Your task to perform on an android device: open app "Google Drive" (install if not already installed) Image 0: 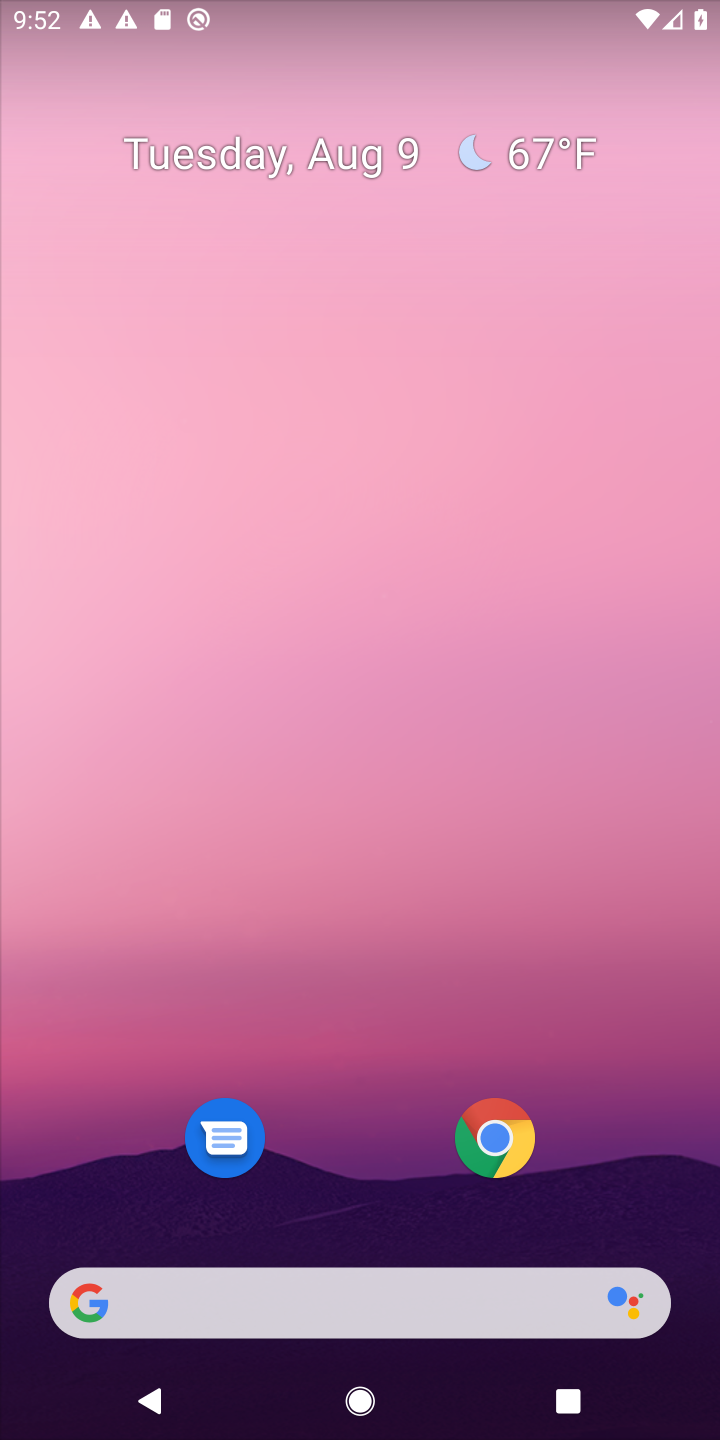
Step 0: drag from (367, 1205) to (365, 200)
Your task to perform on an android device: open app "Google Drive" (install if not already installed) Image 1: 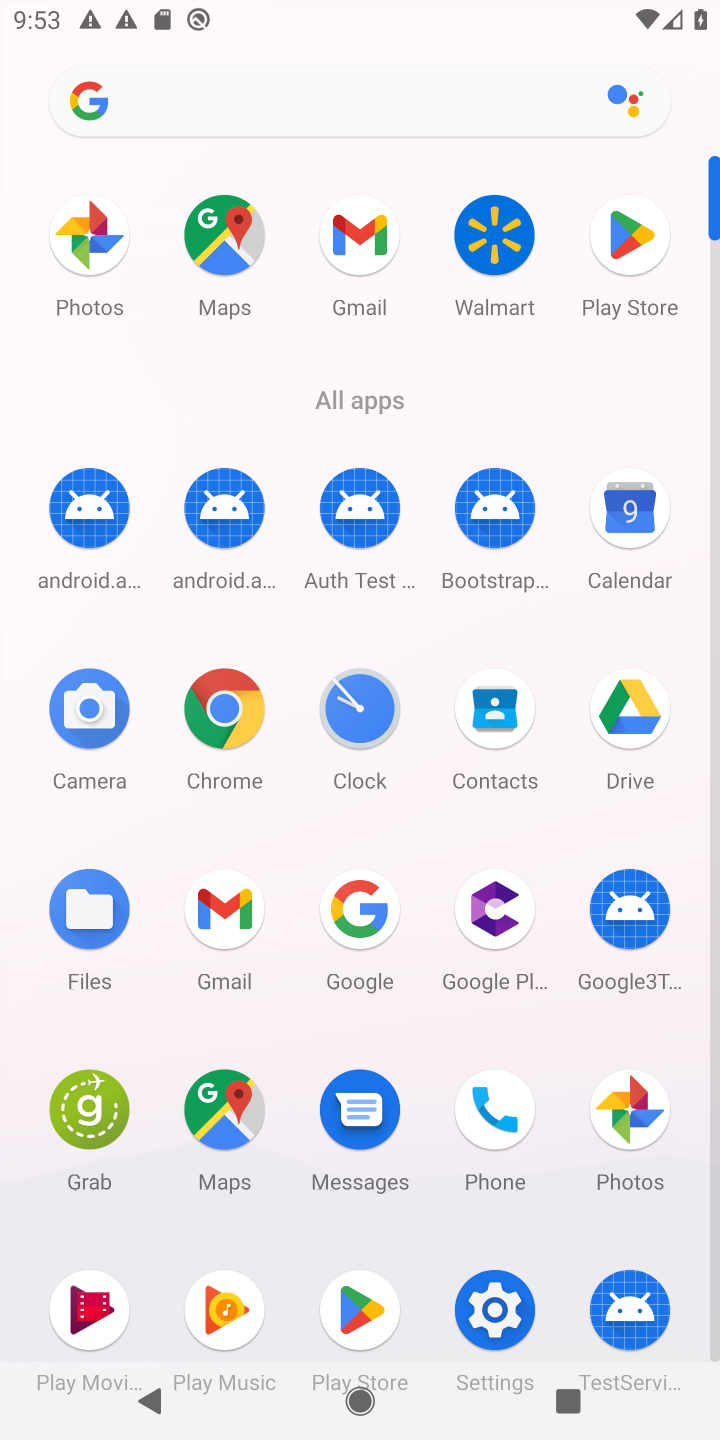
Step 1: click (367, 1288)
Your task to perform on an android device: open app "Google Drive" (install if not already installed) Image 2: 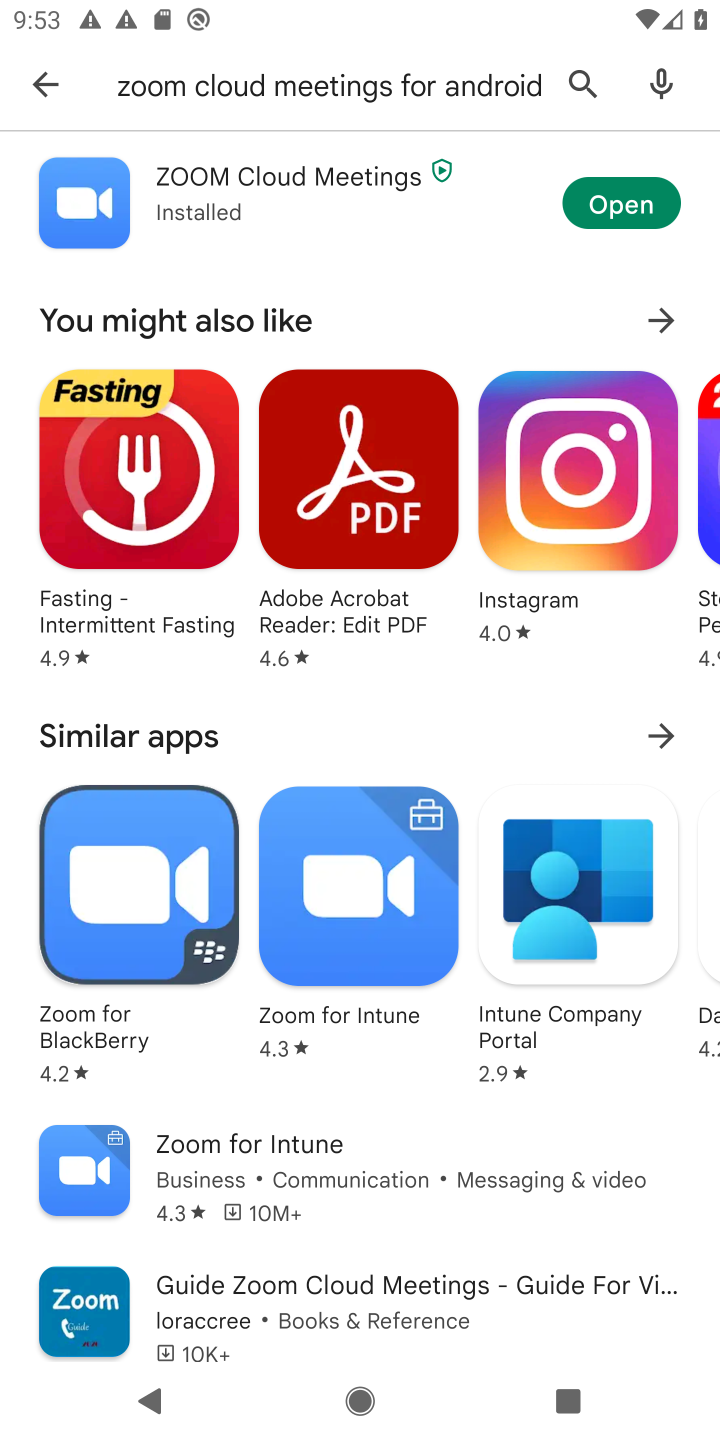
Step 2: click (572, 66)
Your task to perform on an android device: open app "Google Drive" (install if not already installed) Image 3: 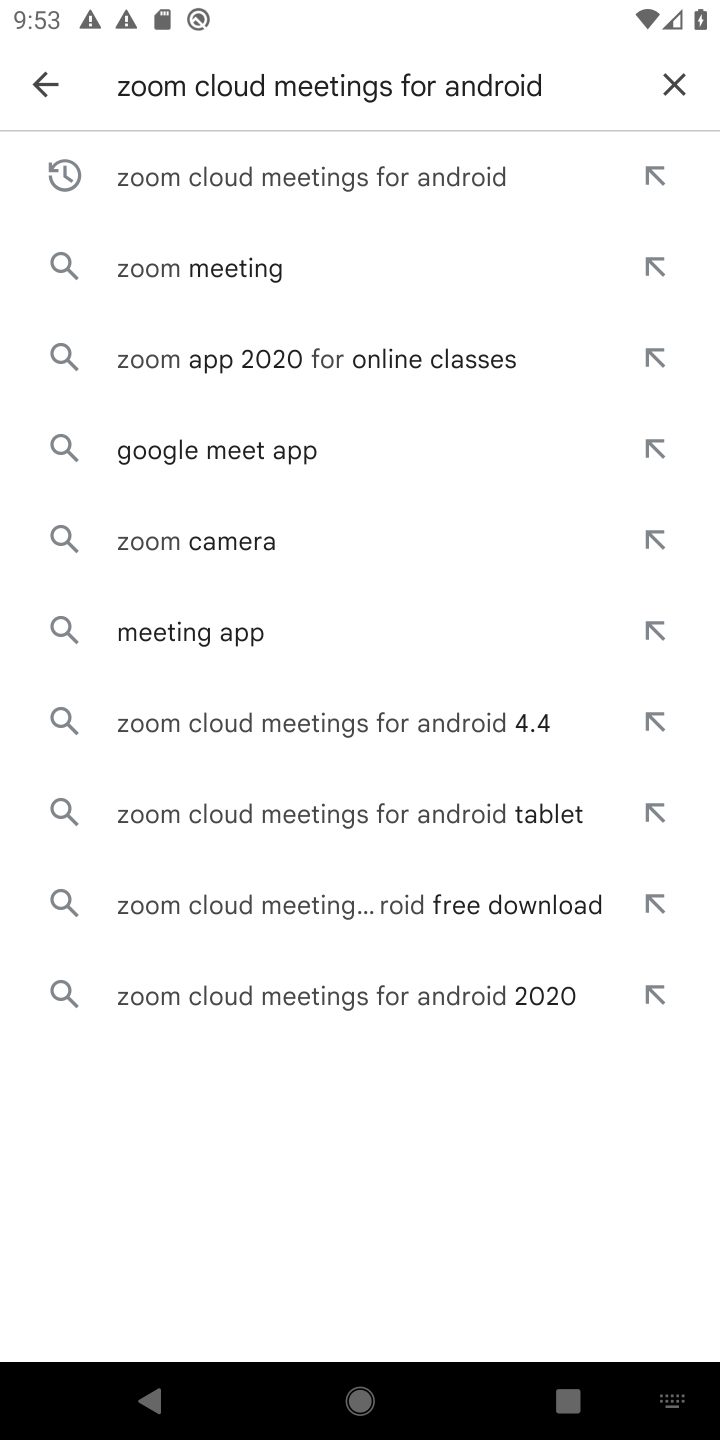
Step 3: click (681, 79)
Your task to perform on an android device: open app "Google Drive" (install if not already installed) Image 4: 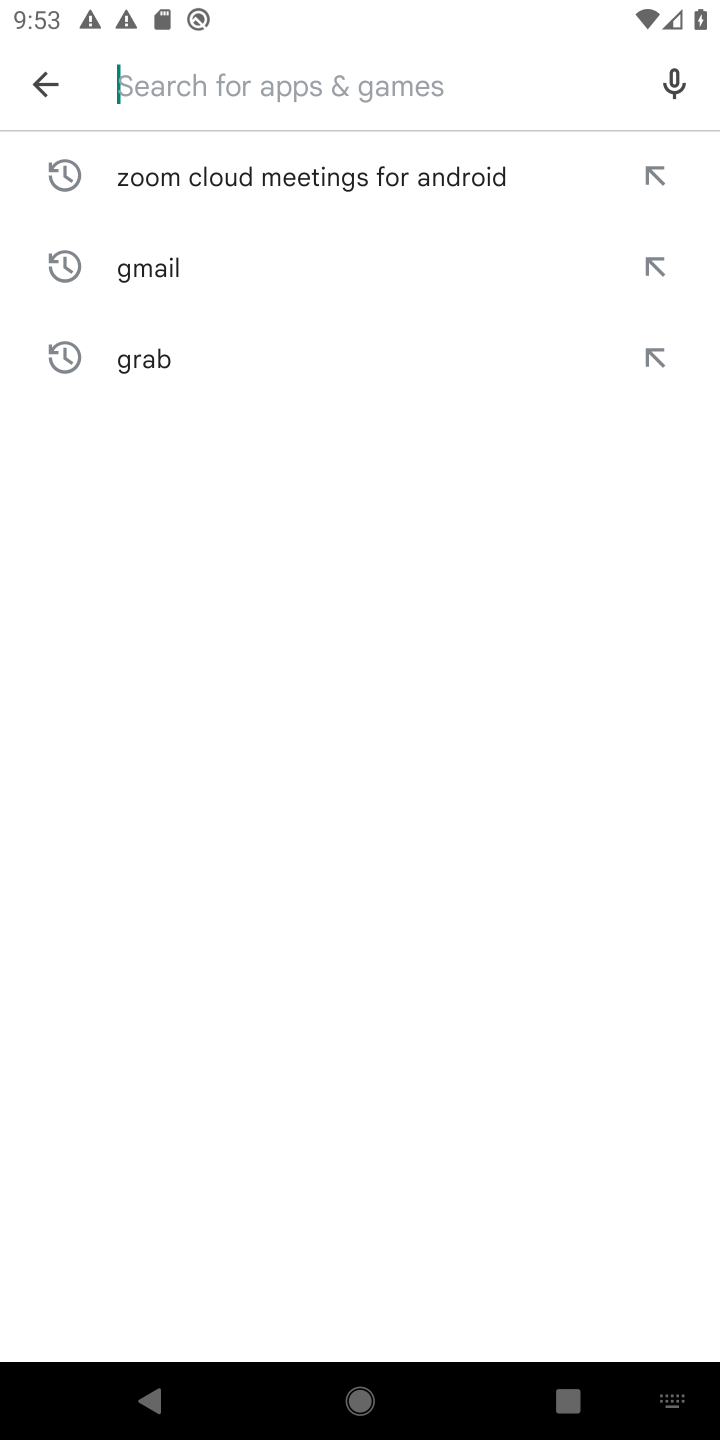
Step 4: click (249, 75)
Your task to perform on an android device: open app "Google Drive" (install if not already installed) Image 5: 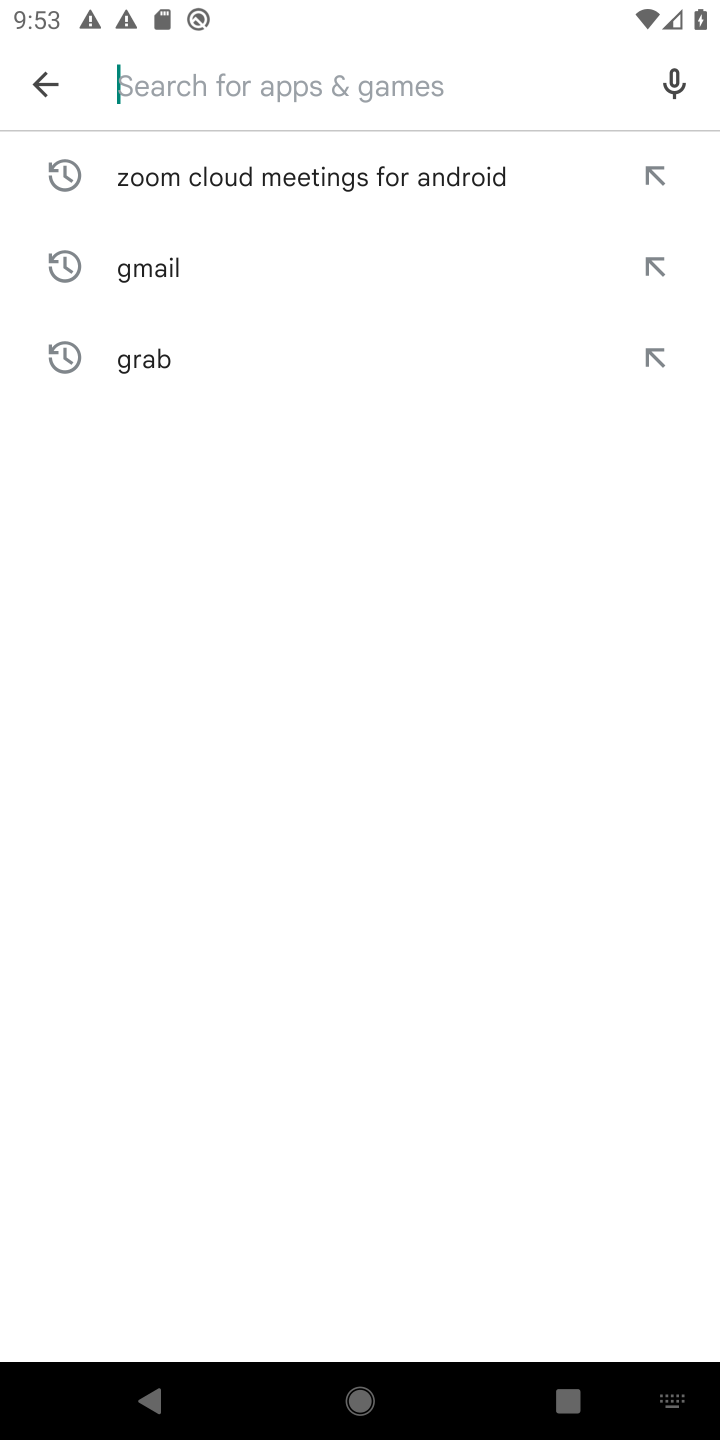
Step 5: type "Google Drive"
Your task to perform on an android device: open app "Google Drive" (install if not already installed) Image 6: 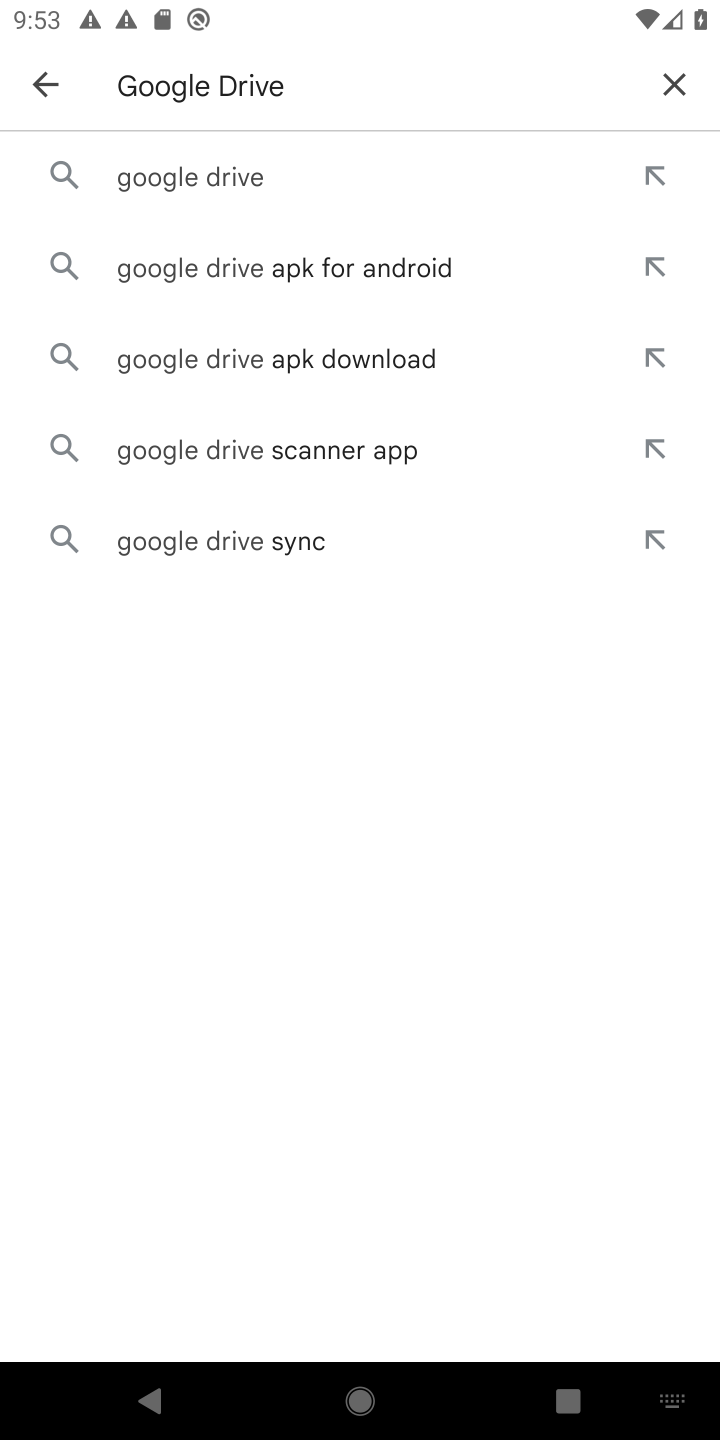
Step 6: click (263, 160)
Your task to perform on an android device: open app "Google Drive" (install if not already installed) Image 7: 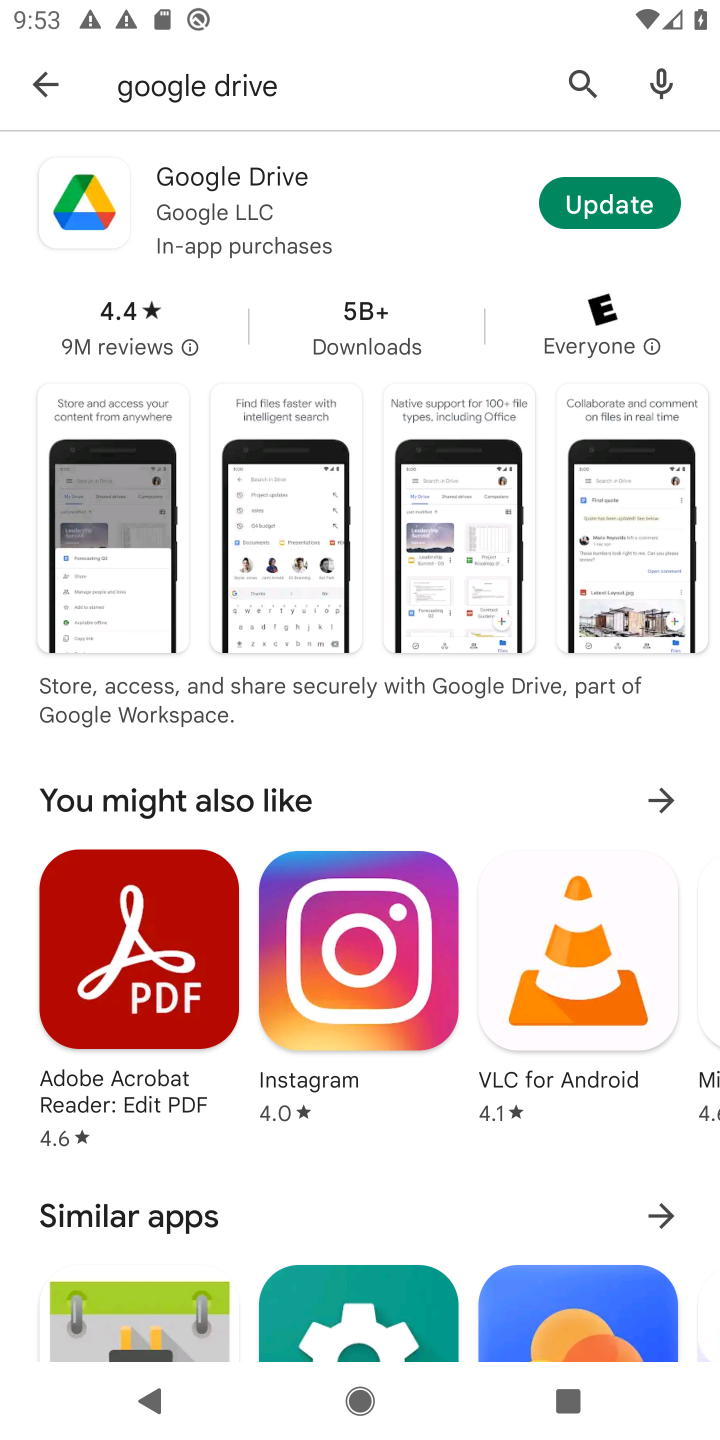
Step 7: click (592, 197)
Your task to perform on an android device: open app "Google Drive" (install if not already installed) Image 8: 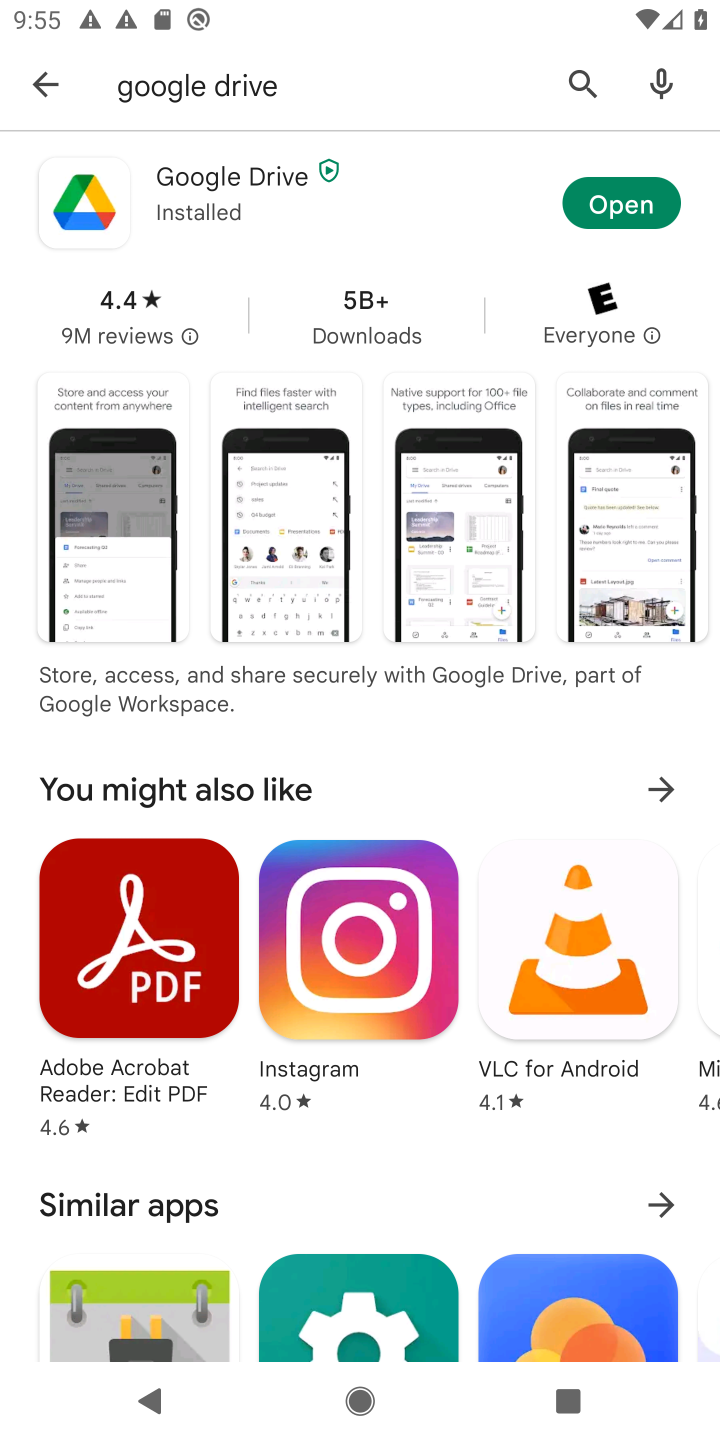
Step 8: click (650, 200)
Your task to perform on an android device: open app "Google Drive" (install if not already installed) Image 9: 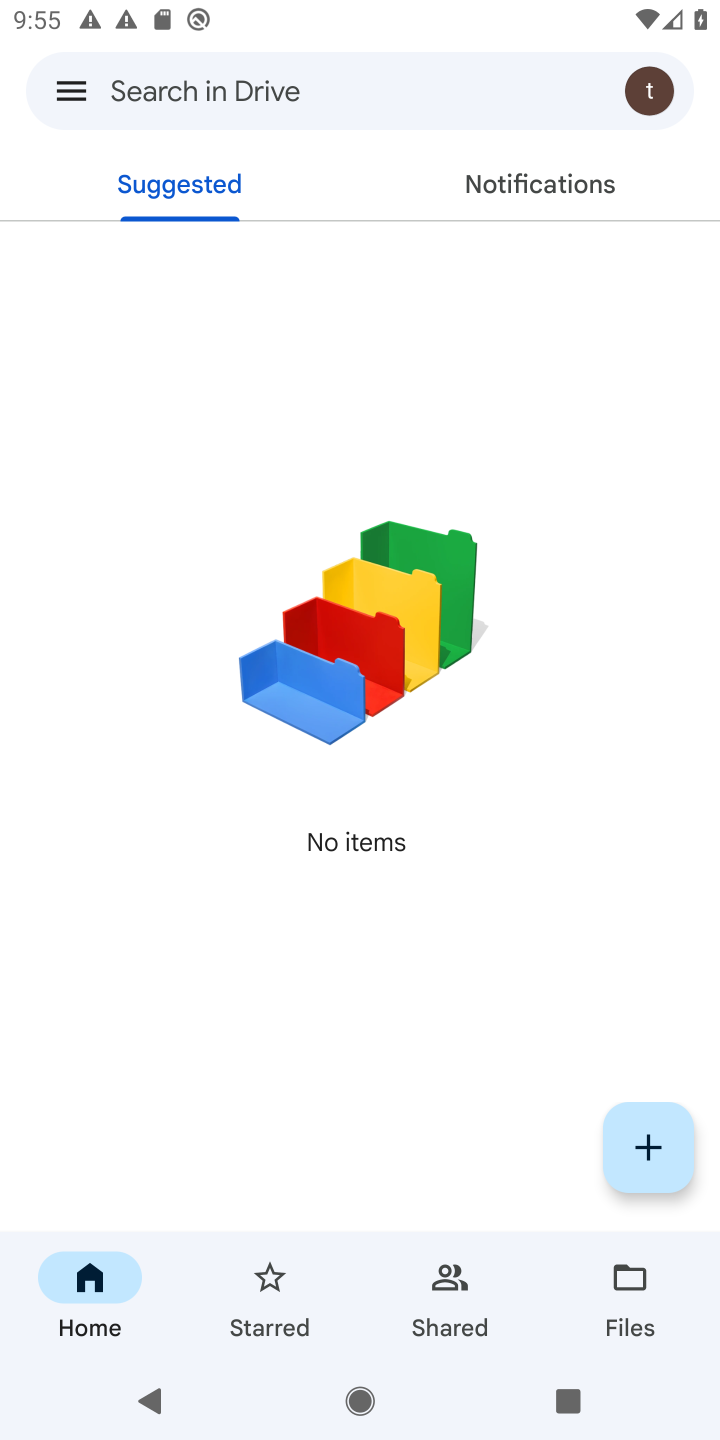
Step 9: task complete